Your task to perform on an android device: What's on my calendar tomorrow? Image 0: 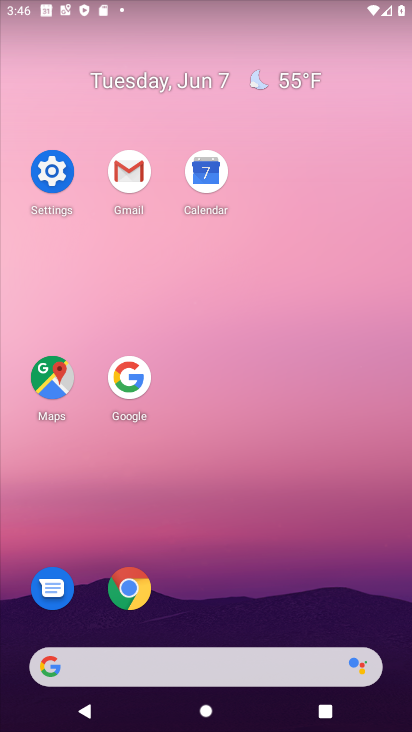
Step 0: click (219, 178)
Your task to perform on an android device: What's on my calendar tomorrow? Image 1: 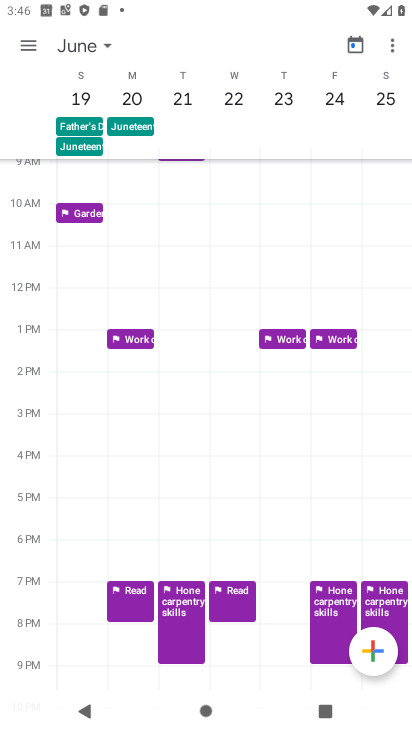
Step 1: click (77, 48)
Your task to perform on an android device: What's on my calendar tomorrow? Image 2: 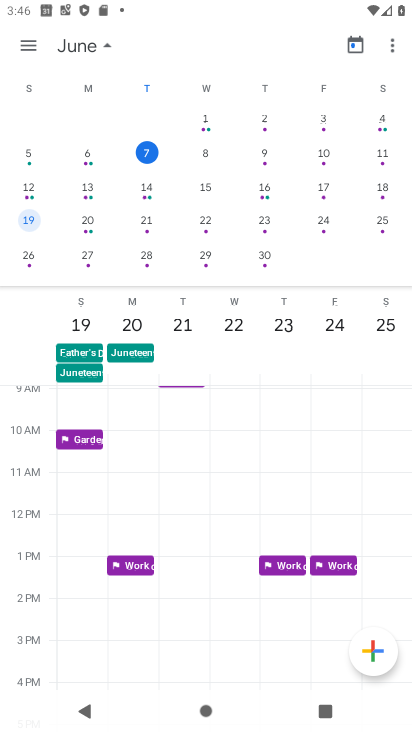
Step 2: drag from (40, 210) to (399, 214)
Your task to perform on an android device: What's on my calendar tomorrow? Image 3: 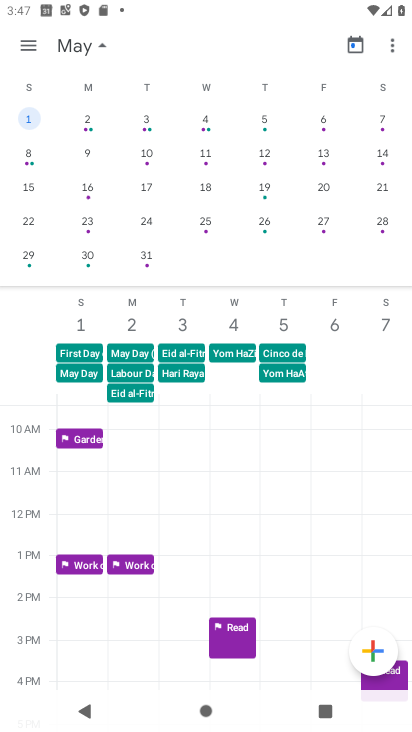
Step 3: drag from (396, 168) to (1, 199)
Your task to perform on an android device: What's on my calendar tomorrow? Image 4: 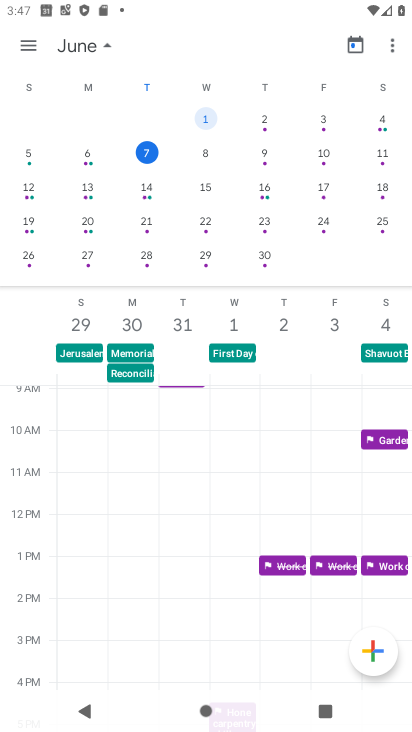
Step 4: click (210, 157)
Your task to perform on an android device: What's on my calendar tomorrow? Image 5: 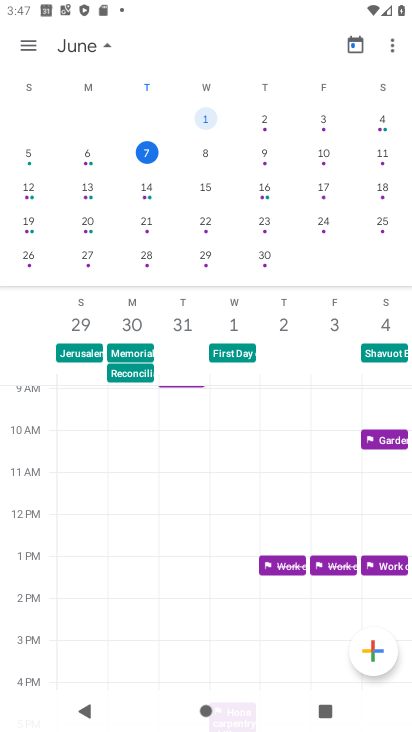
Step 5: click (211, 156)
Your task to perform on an android device: What's on my calendar tomorrow? Image 6: 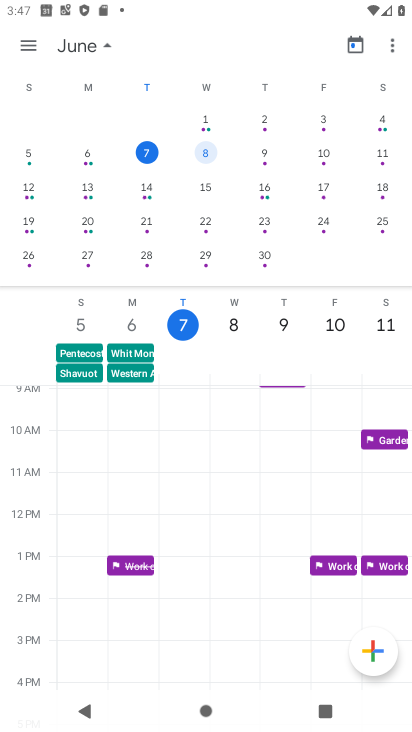
Step 6: click (233, 314)
Your task to perform on an android device: What's on my calendar tomorrow? Image 7: 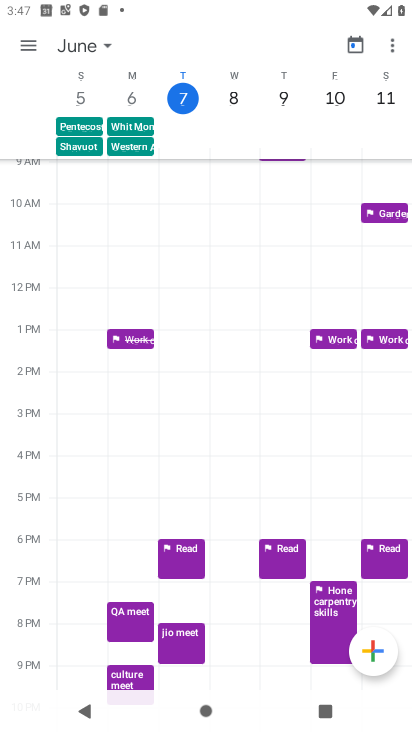
Step 7: click (245, 96)
Your task to perform on an android device: What's on my calendar tomorrow? Image 8: 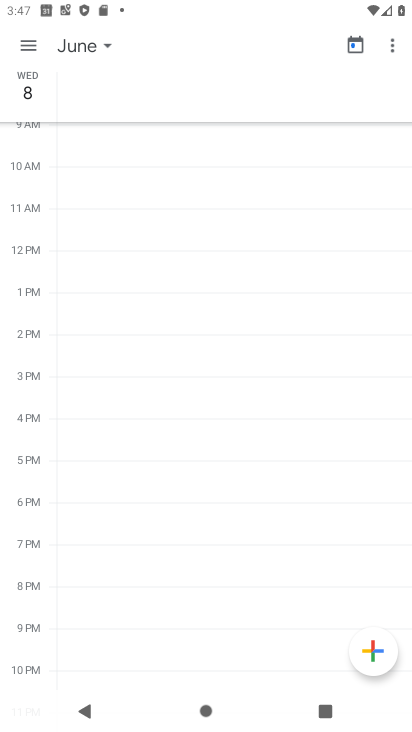
Step 8: task complete